Your task to perform on an android device: toggle priority inbox in the gmail app Image 0: 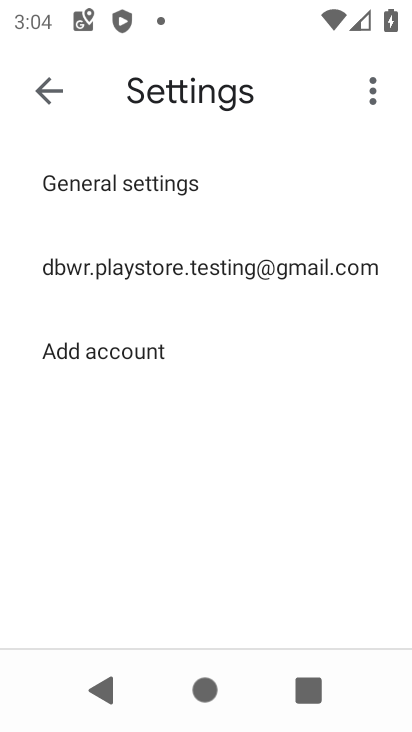
Step 0: click (277, 272)
Your task to perform on an android device: toggle priority inbox in the gmail app Image 1: 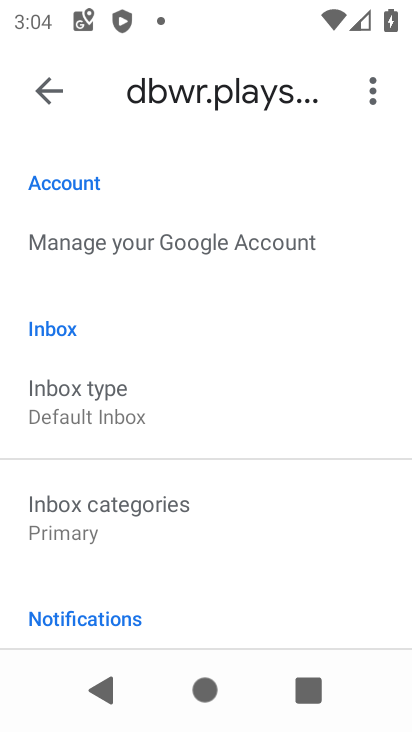
Step 1: click (138, 402)
Your task to perform on an android device: toggle priority inbox in the gmail app Image 2: 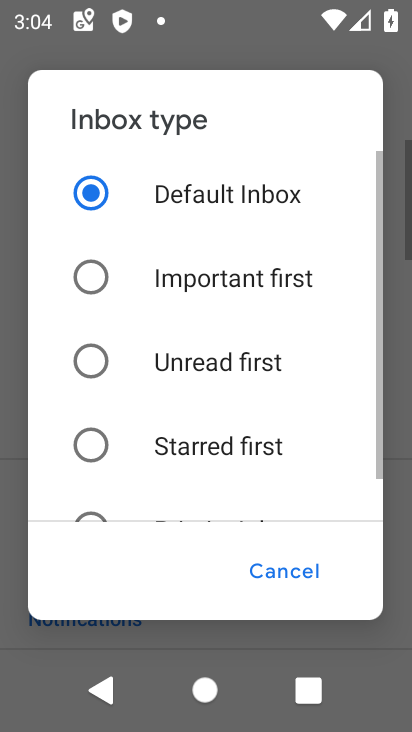
Step 2: drag from (176, 494) to (203, 182)
Your task to perform on an android device: toggle priority inbox in the gmail app Image 3: 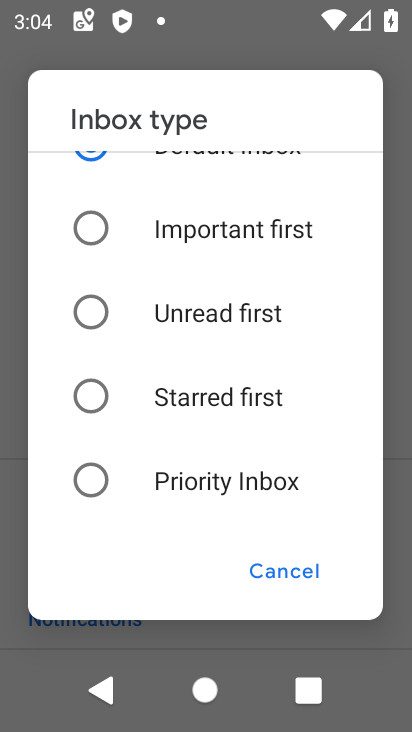
Step 3: click (268, 487)
Your task to perform on an android device: toggle priority inbox in the gmail app Image 4: 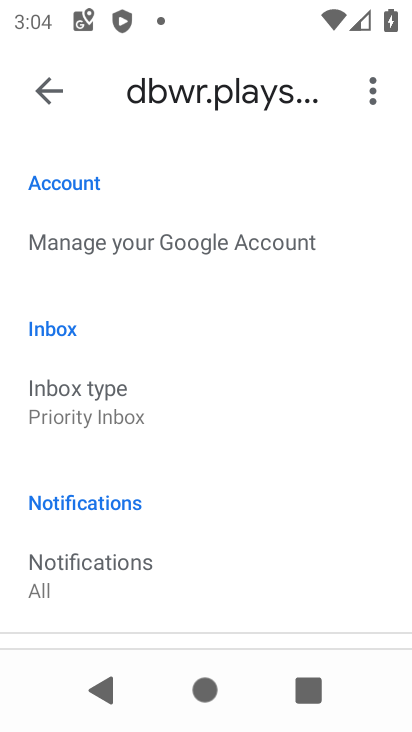
Step 4: task complete